Your task to perform on an android device: find snoozed emails in the gmail app Image 0: 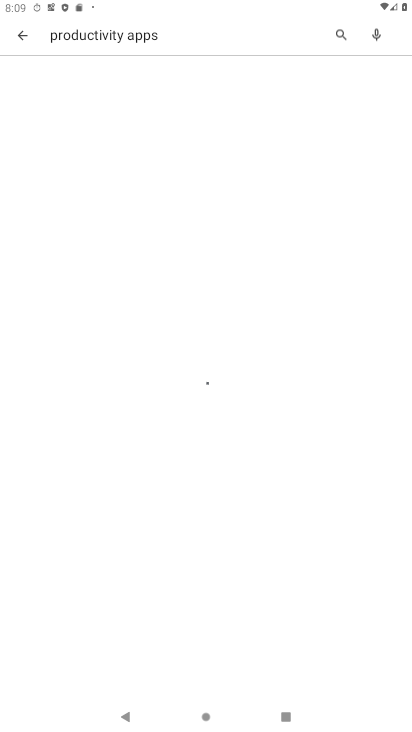
Step 0: press home button
Your task to perform on an android device: find snoozed emails in the gmail app Image 1: 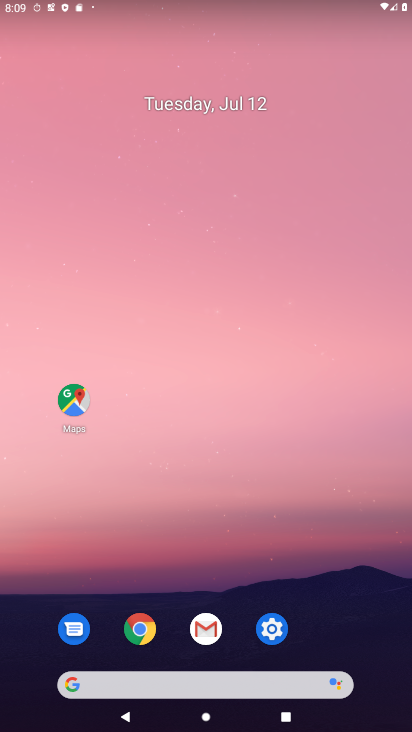
Step 1: click (210, 633)
Your task to perform on an android device: find snoozed emails in the gmail app Image 2: 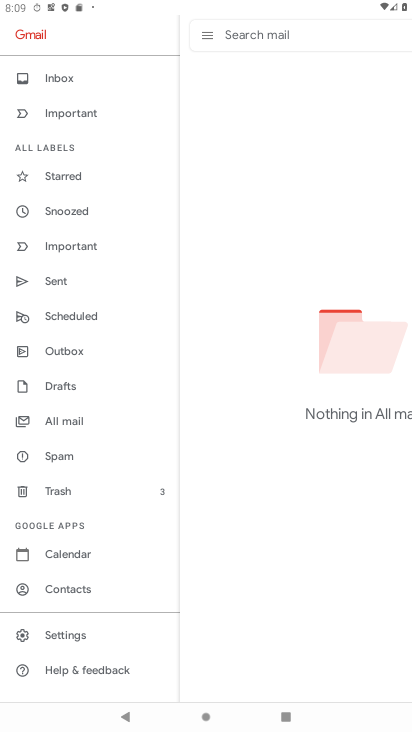
Step 2: click (52, 201)
Your task to perform on an android device: find snoozed emails in the gmail app Image 3: 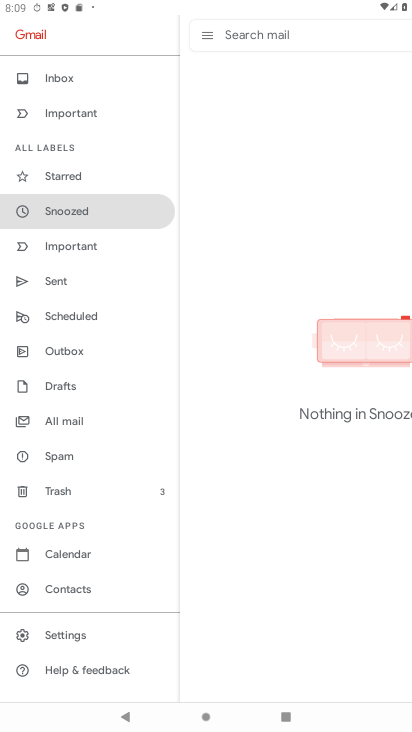
Step 3: task complete